Your task to perform on an android device: change the clock style Image 0: 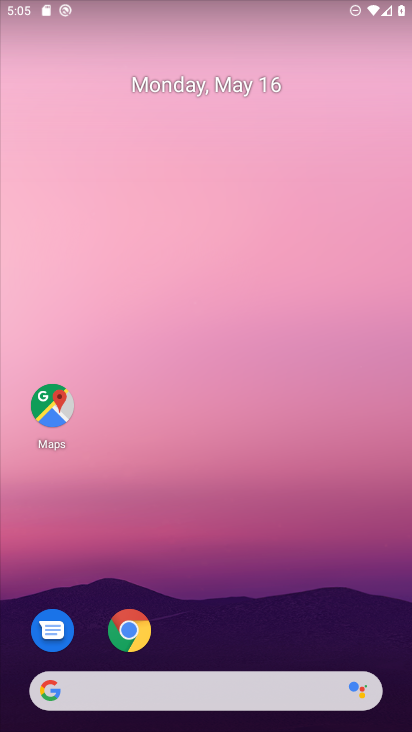
Step 0: drag from (303, 611) to (147, 80)
Your task to perform on an android device: change the clock style Image 1: 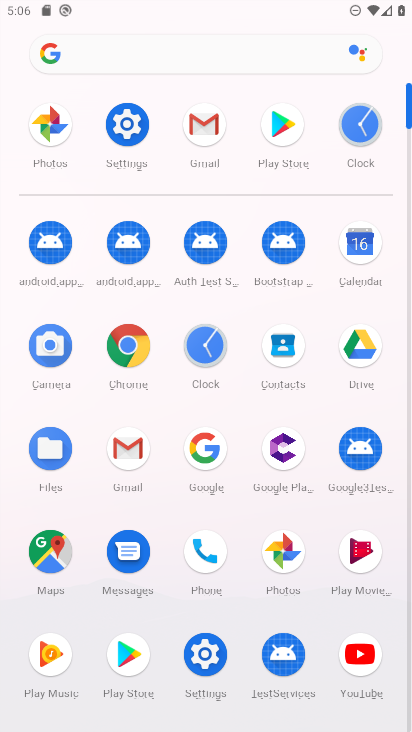
Step 1: click (206, 335)
Your task to perform on an android device: change the clock style Image 2: 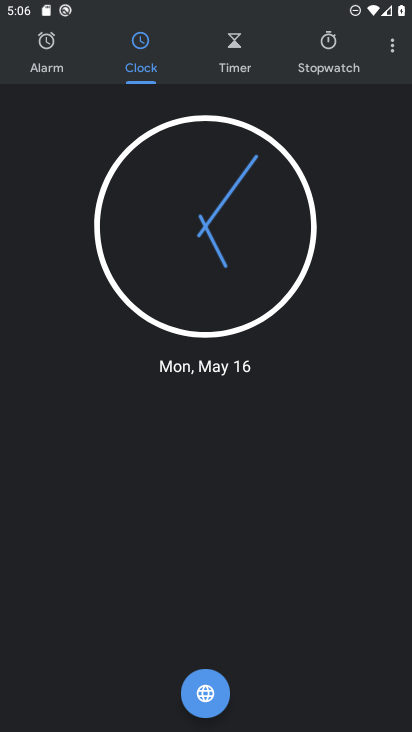
Step 2: click (392, 46)
Your task to perform on an android device: change the clock style Image 3: 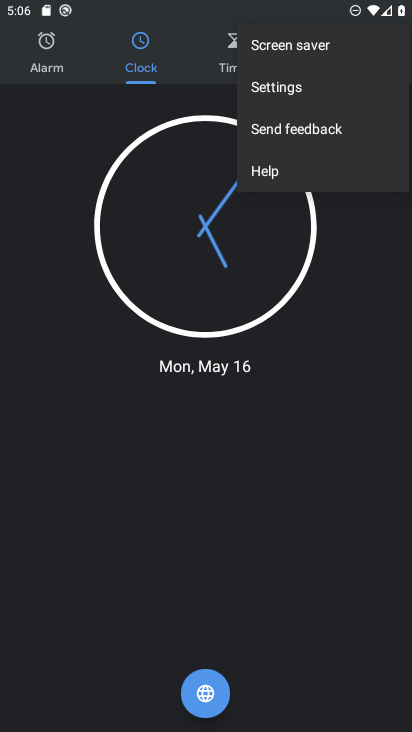
Step 3: click (256, 92)
Your task to perform on an android device: change the clock style Image 4: 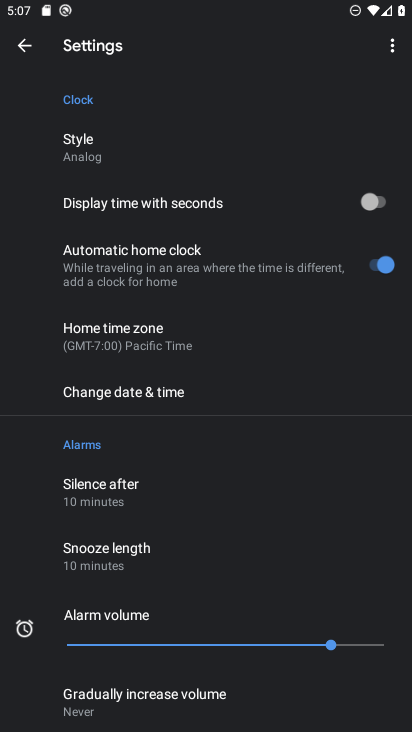
Step 4: click (92, 139)
Your task to perform on an android device: change the clock style Image 5: 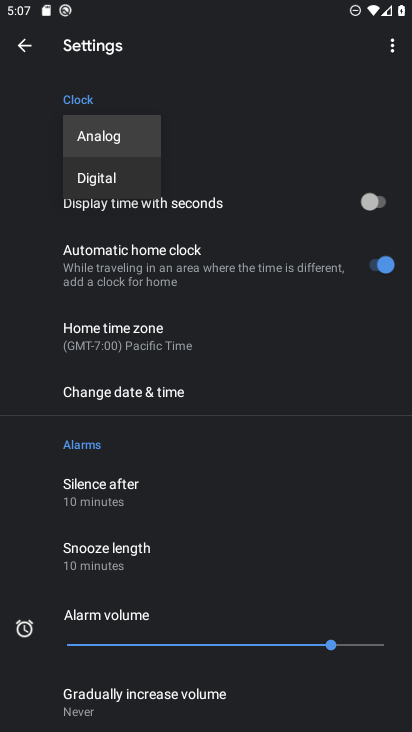
Step 5: click (92, 178)
Your task to perform on an android device: change the clock style Image 6: 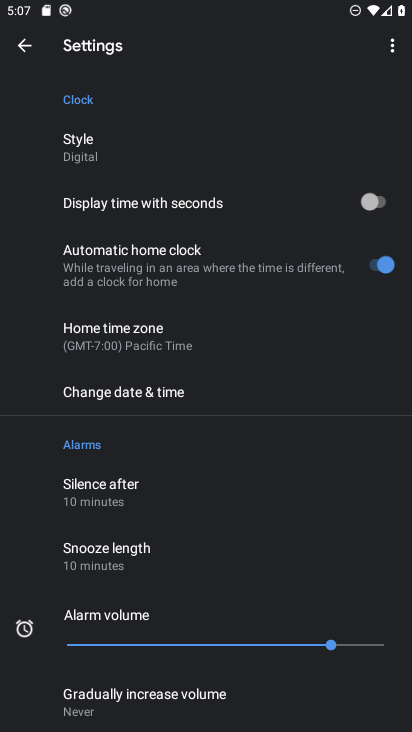
Step 6: task complete